Your task to perform on an android device: Go to Reddit.com Image 0: 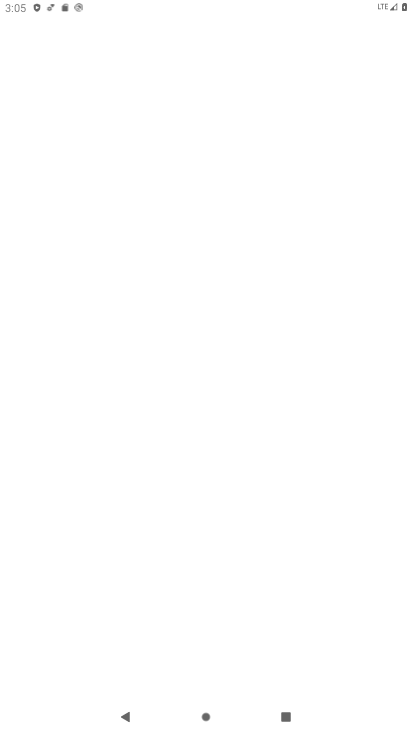
Step 0: drag from (252, 659) to (260, 94)
Your task to perform on an android device: Go to Reddit.com Image 1: 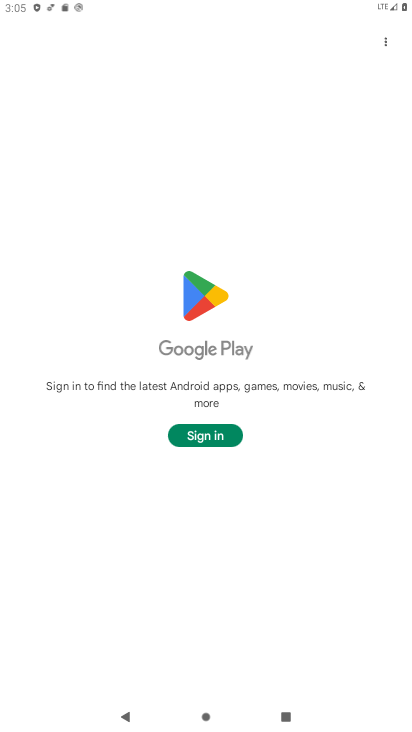
Step 1: press back button
Your task to perform on an android device: Go to Reddit.com Image 2: 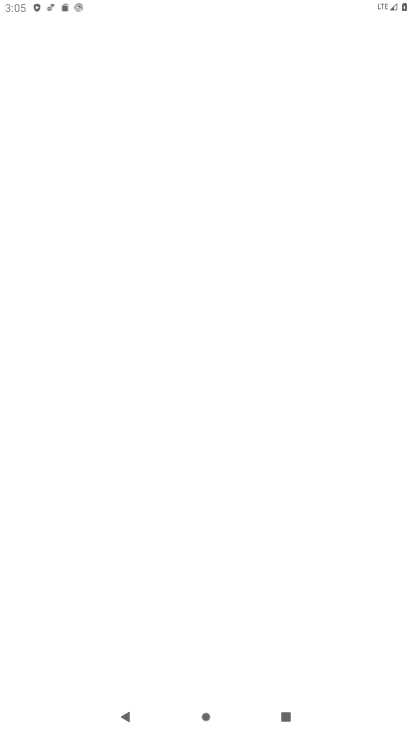
Step 2: press back button
Your task to perform on an android device: Go to Reddit.com Image 3: 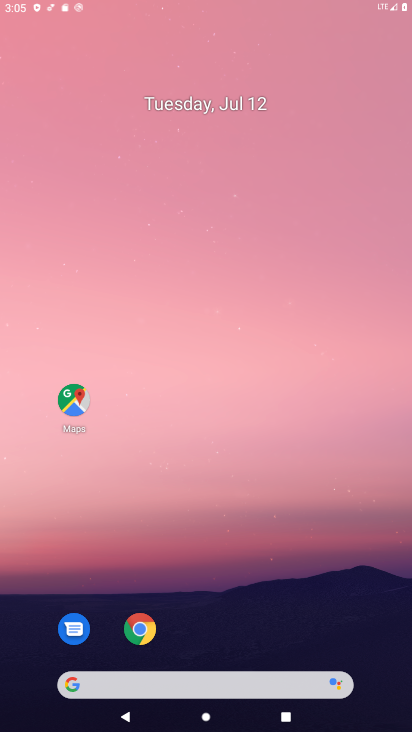
Step 3: press back button
Your task to perform on an android device: Go to Reddit.com Image 4: 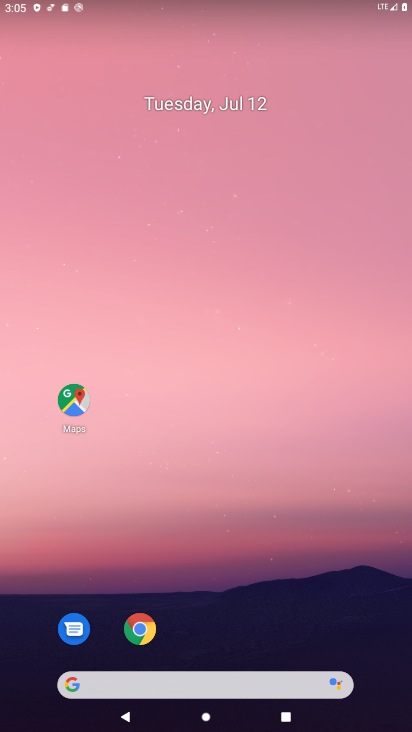
Step 4: drag from (235, 599) to (261, 218)
Your task to perform on an android device: Go to Reddit.com Image 5: 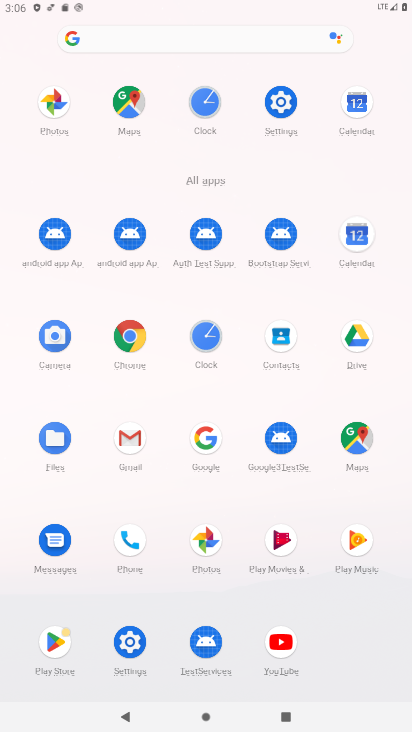
Step 5: click (129, 356)
Your task to perform on an android device: Go to Reddit.com Image 6: 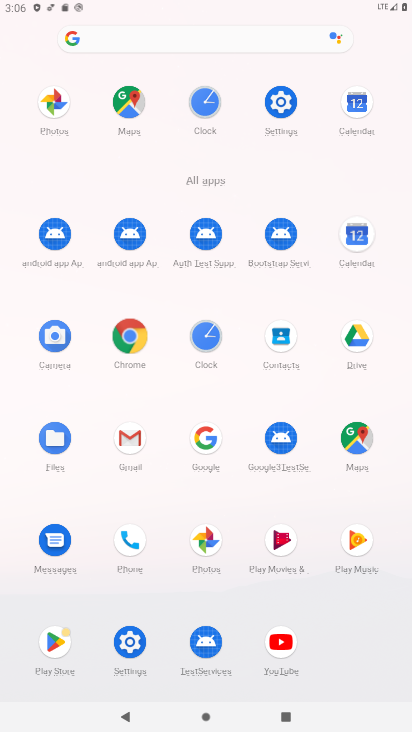
Step 6: click (129, 354)
Your task to perform on an android device: Go to Reddit.com Image 7: 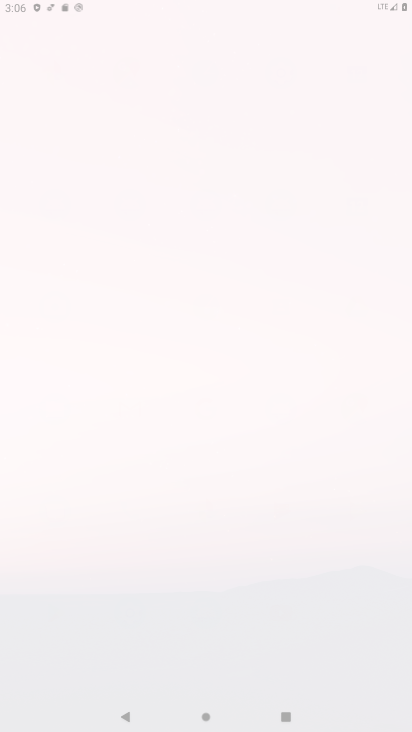
Step 7: click (129, 354)
Your task to perform on an android device: Go to Reddit.com Image 8: 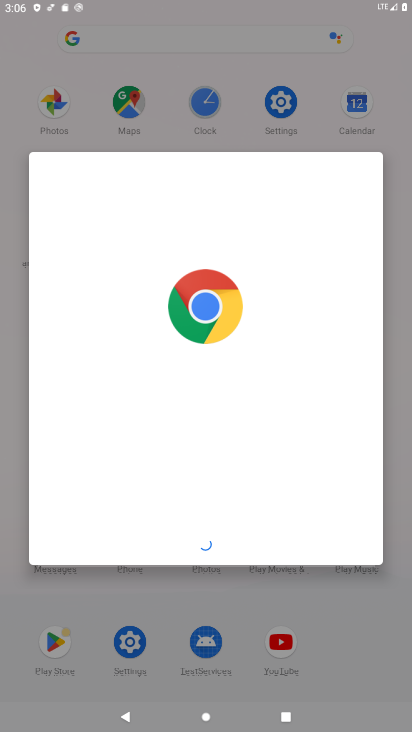
Step 8: click (132, 351)
Your task to perform on an android device: Go to Reddit.com Image 9: 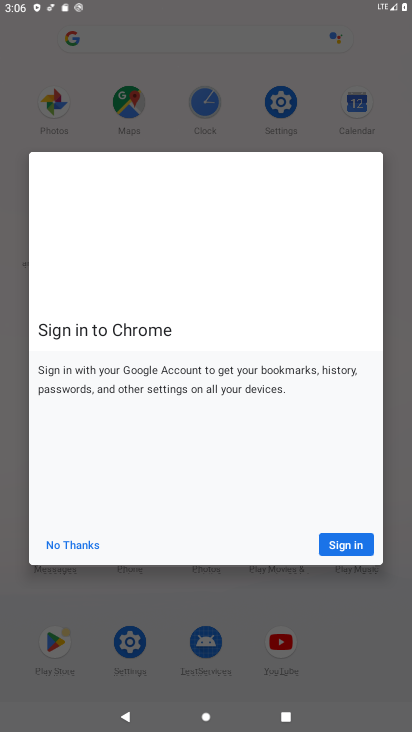
Step 9: click (352, 547)
Your task to perform on an android device: Go to Reddit.com Image 10: 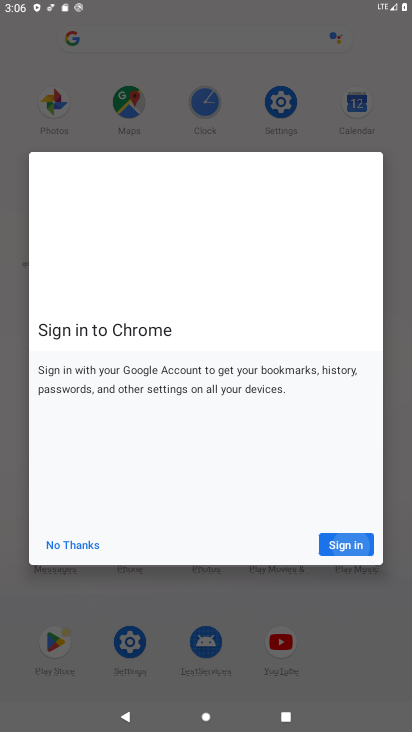
Step 10: click (357, 547)
Your task to perform on an android device: Go to Reddit.com Image 11: 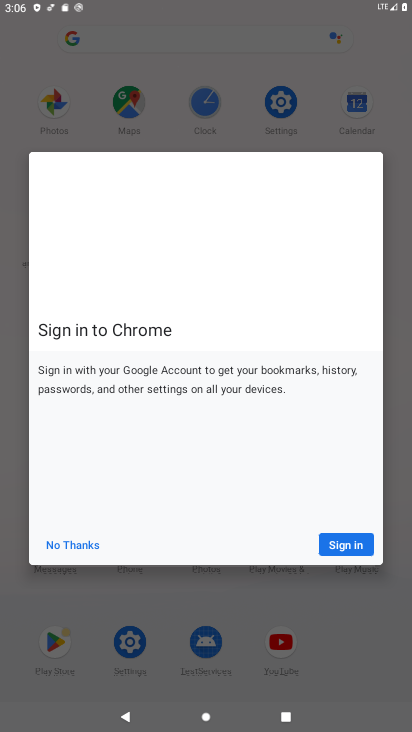
Step 11: click (358, 547)
Your task to perform on an android device: Go to Reddit.com Image 12: 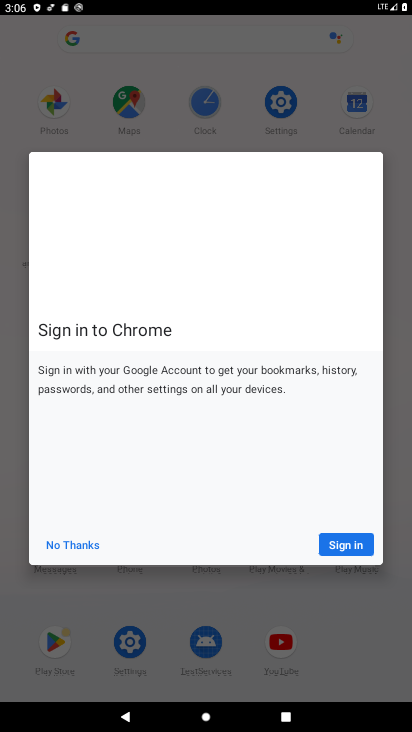
Step 12: click (361, 549)
Your task to perform on an android device: Go to Reddit.com Image 13: 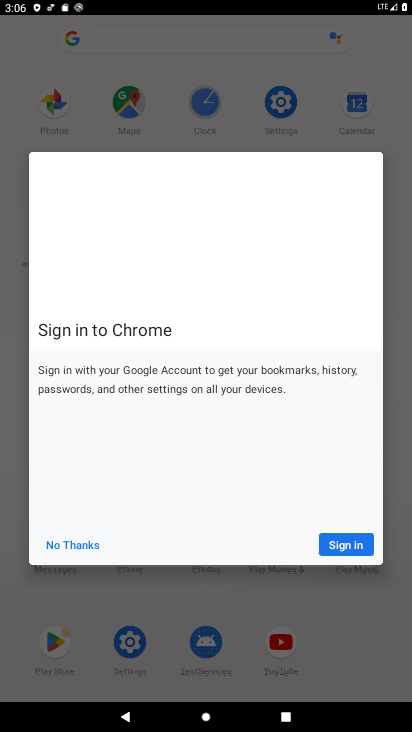
Step 13: click (361, 549)
Your task to perform on an android device: Go to Reddit.com Image 14: 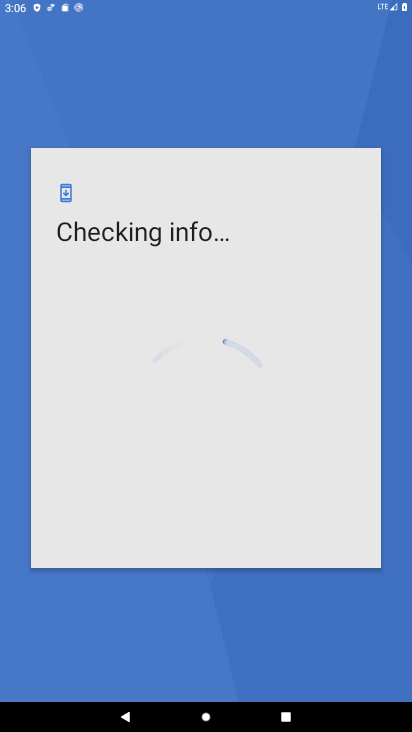
Step 14: click (159, 88)
Your task to perform on an android device: Go to Reddit.com Image 15: 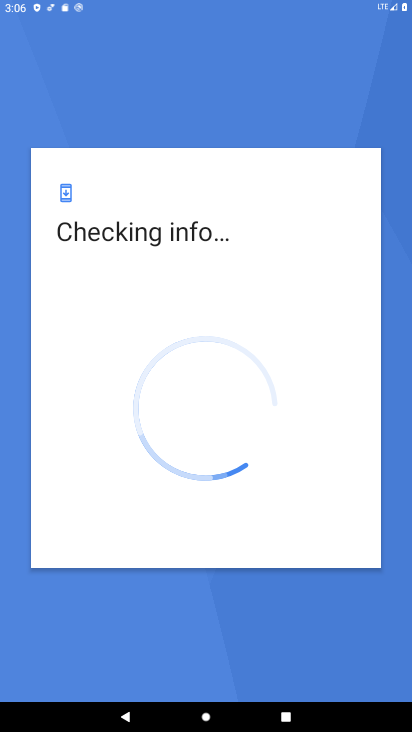
Step 15: drag from (243, 21) to (389, 87)
Your task to perform on an android device: Go to Reddit.com Image 16: 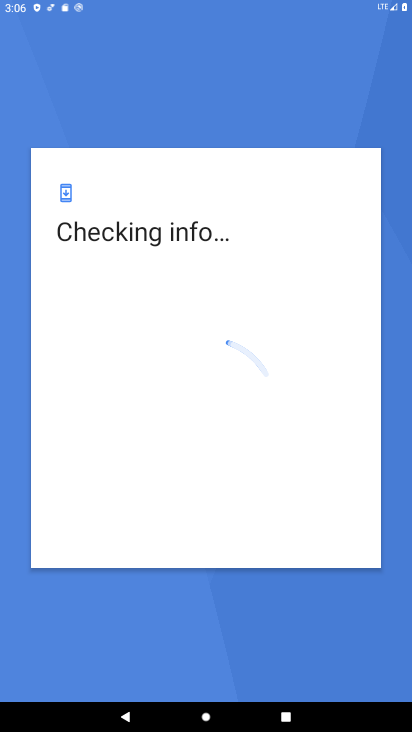
Step 16: press back button
Your task to perform on an android device: Go to Reddit.com Image 17: 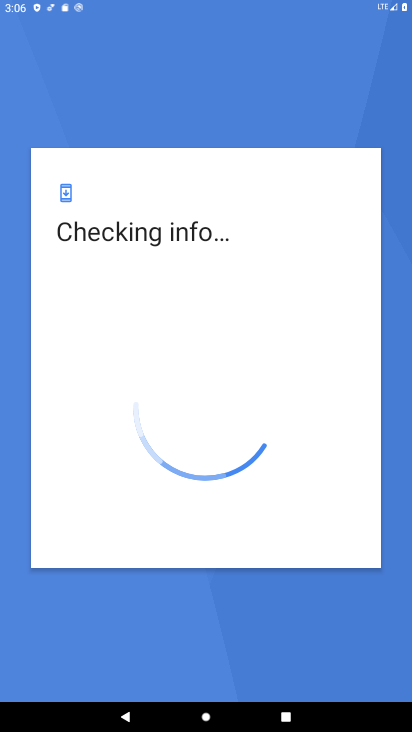
Step 17: press back button
Your task to perform on an android device: Go to Reddit.com Image 18: 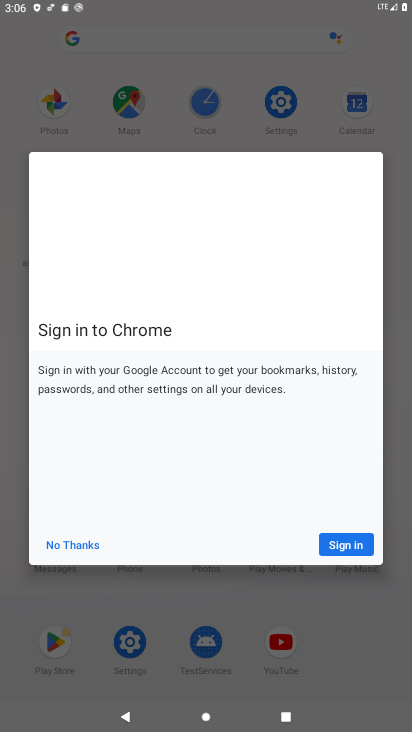
Step 18: click (56, 542)
Your task to perform on an android device: Go to Reddit.com Image 19: 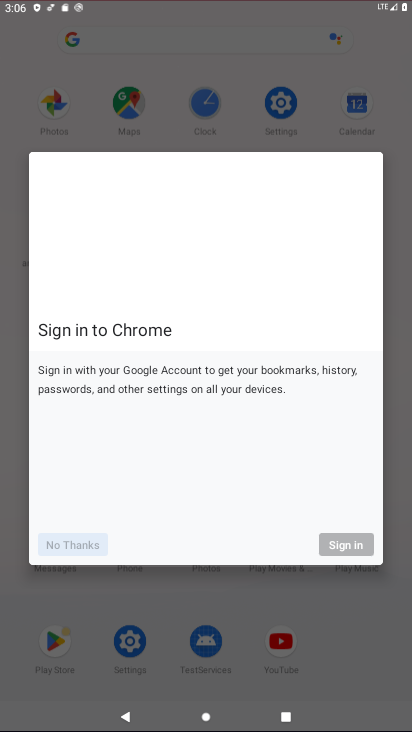
Step 19: click (57, 541)
Your task to perform on an android device: Go to Reddit.com Image 20: 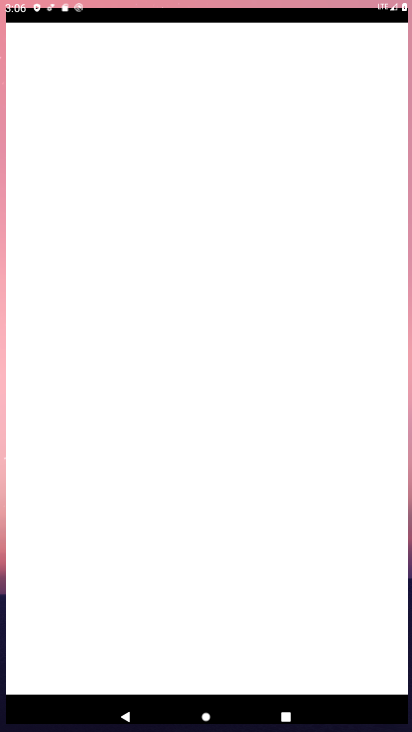
Step 20: click (59, 541)
Your task to perform on an android device: Go to Reddit.com Image 21: 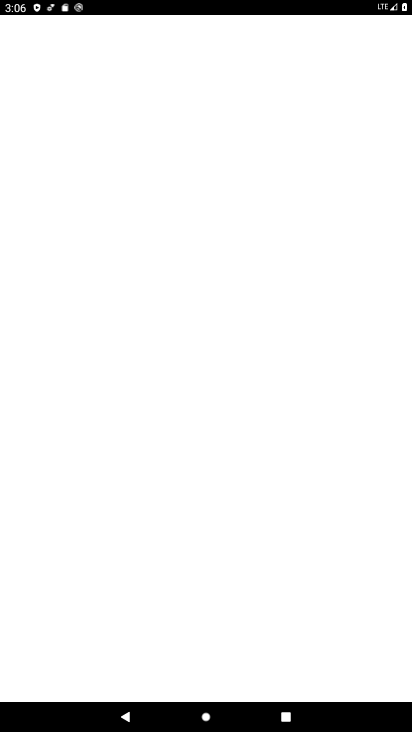
Step 21: click (60, 542)
Your task to perform on an android device: Go to Reddit.com Image 22: 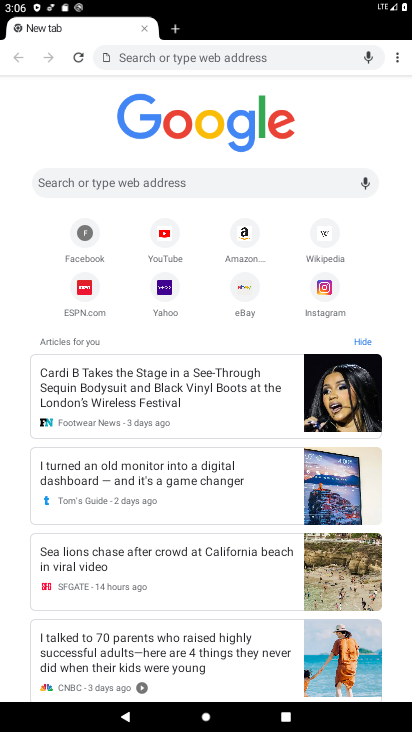
Step 22: click (95, 181)
Your task to perform on an android device: Go to Reddit.com Image 23: 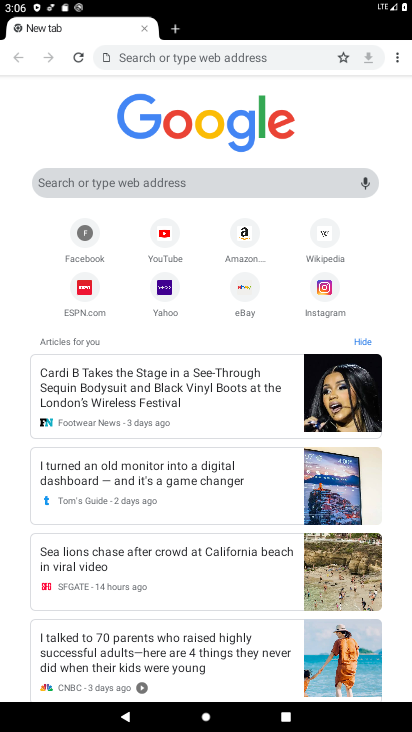
Step 23: click (95, 181)
Your task to perform on an android device: Go to Reddit.com Image 24: 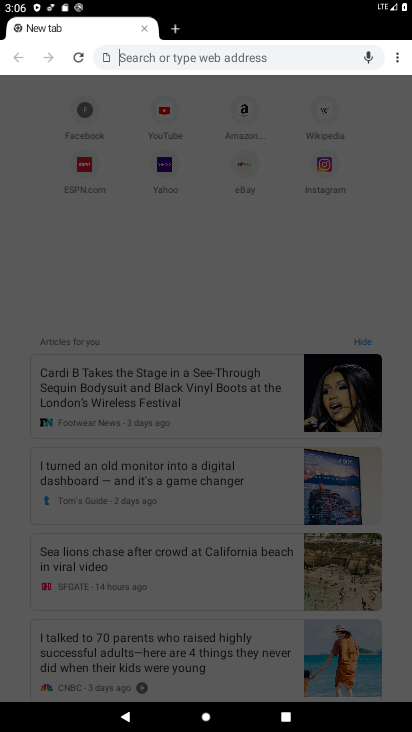
Step 24: click (95, 181)
Your task to perform on an android device: Go to Reddit.com Image 25: 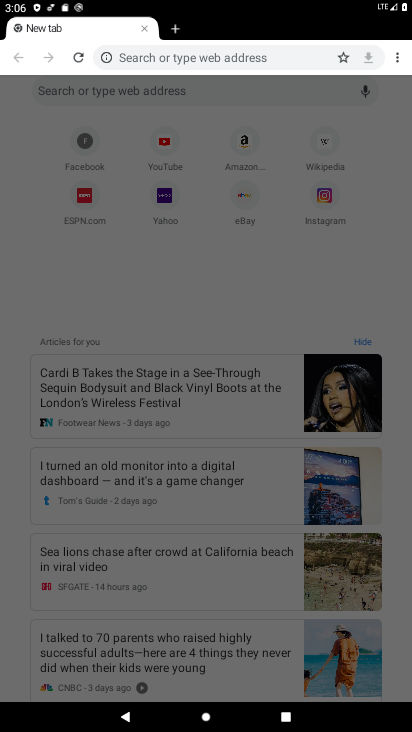
Step 25: click (95, 181)
Your task to perform on an android device: Go to Reddit.com Image 26: 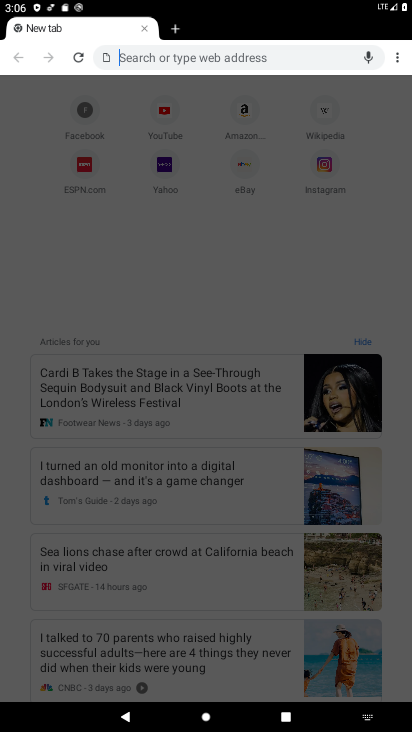
Step 26: type "reddit.com"
Your task to perform on an android device: Go to Reddit.com Image 27: 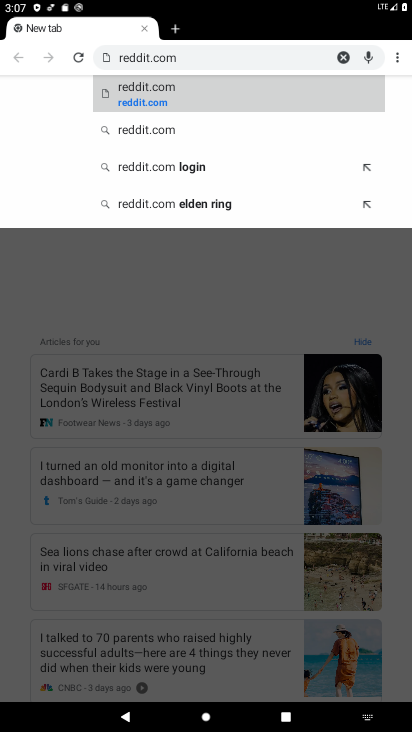
Step 27: click (167, 127)
Your task to perform on an android device: Go to Reddit.com Image 28: 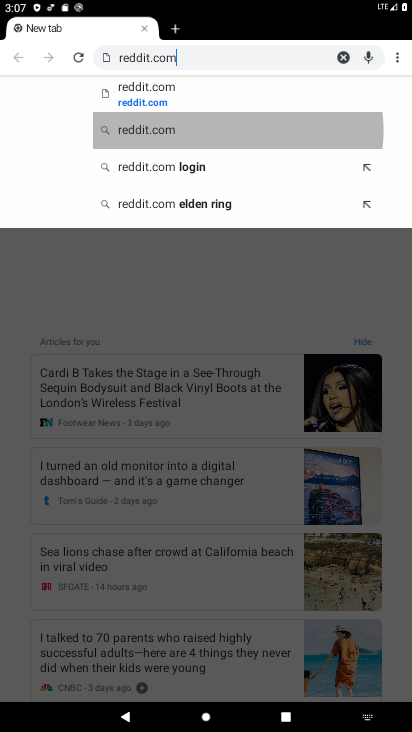
Step 28: click (180, 166)
Your task to perform on an android device: Go to Reddit.com Image 29: 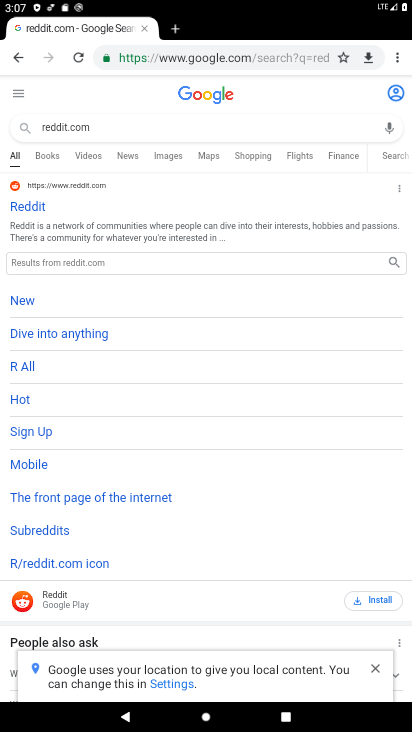
Step 29: task complete